Your task to perform on an android device: Open Google Image 0: 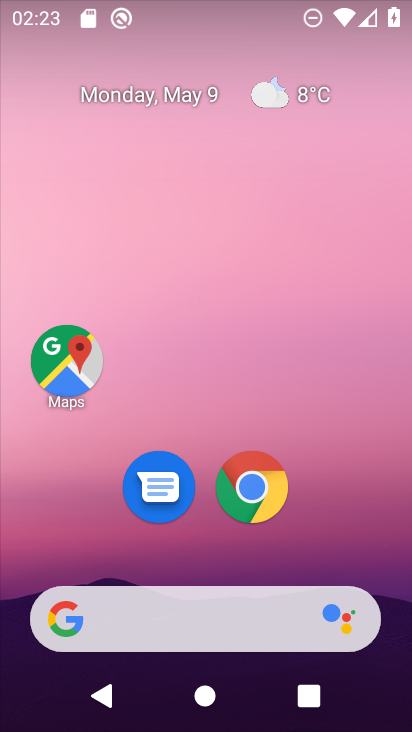
Step 0: drag from (331, 520) to (268, 4)
Your task to perform on an android device: Open Google Image 1: 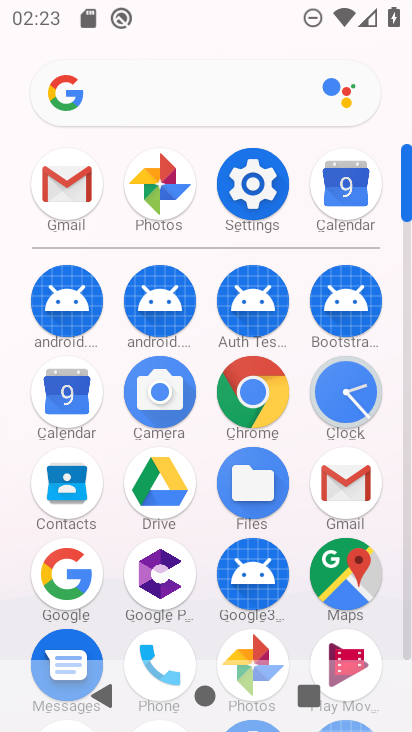
Step 1: click (54, 575)
Your task to perform on an android device: Open Google Image 2: 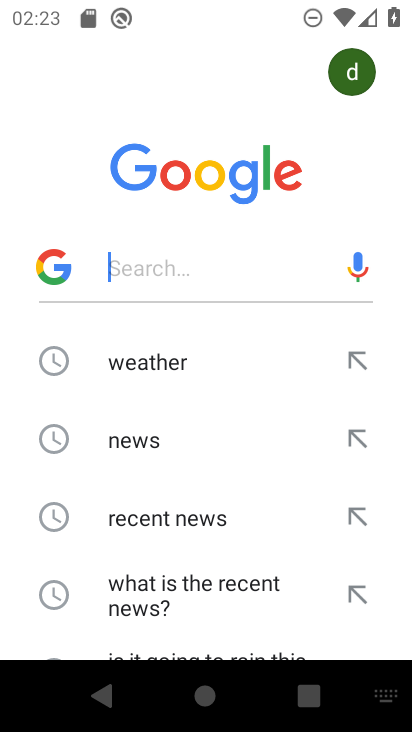
Step 2: task complete